Your task to perform on an android device: Open calendar and show me the third week of next month Image 0: 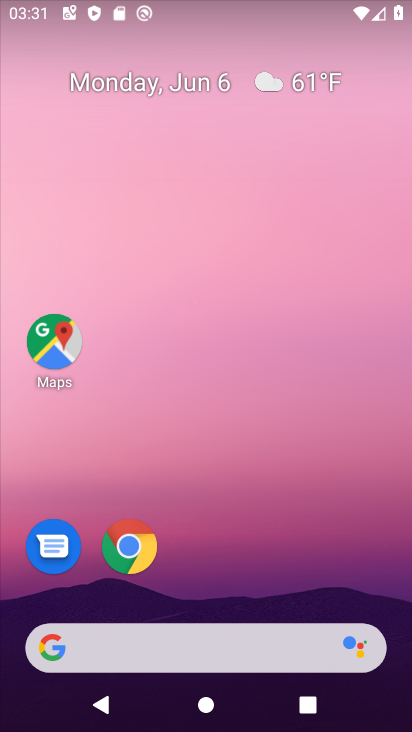
Step 0: press home button
Your task to perform on an android device: Open calendar and show me the third week of next month Image 1: 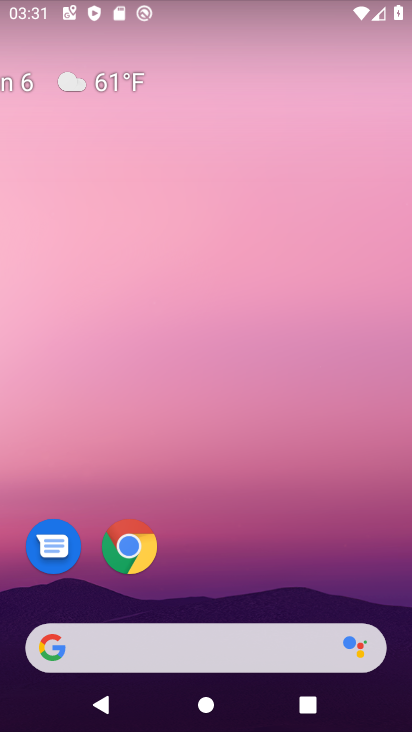
Step 1: drag from (184, 607) to (249, 159)
Your task to perform on an android device: Open calendar and show me the third week of next month Image 2: 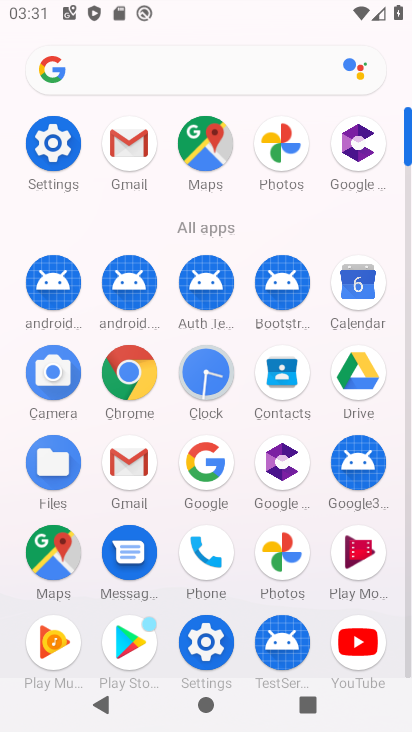
Step 2: click (365, 281)
Your task to perform on an android device: Open calendar and show me the third week of next month Image 3: 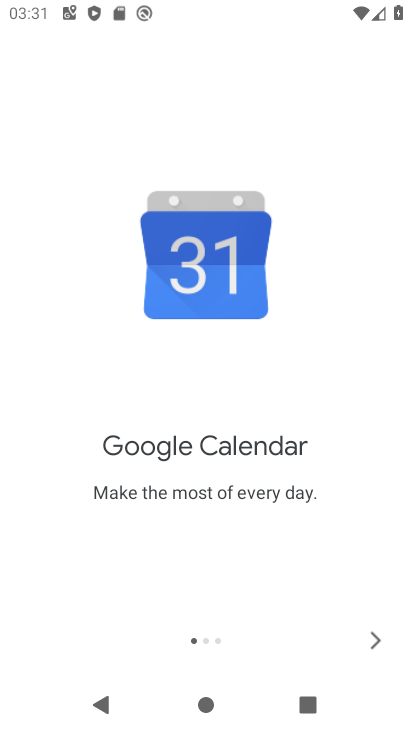
Step 3: click (381, 637)
Your task to perform on an android device: Open calendar and show me the third week of next month Image 4: 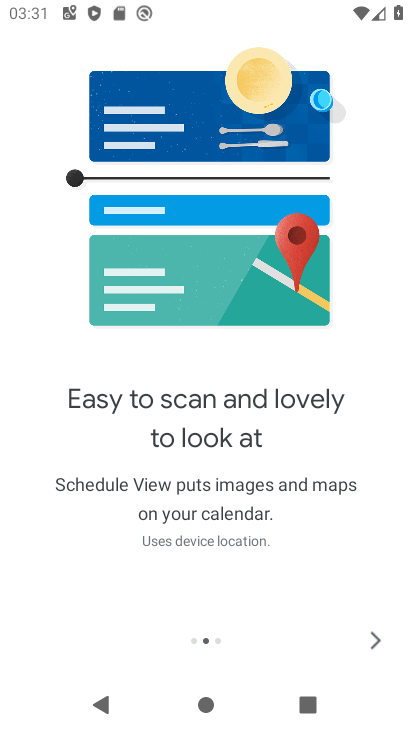
Step 4: click (381, 637)
Your task to perform on an android device: Open calendar and show me the third week of next month Image 5: 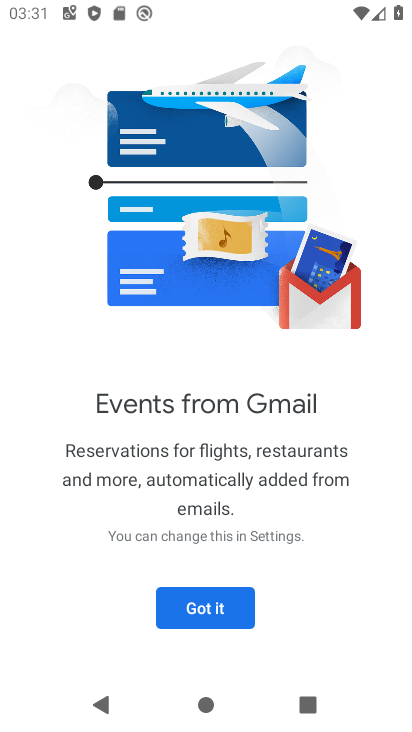
Step 5: click (192, 605)
Your task to perform on an android device: Open calendar and show me the third week of next month Image 6: 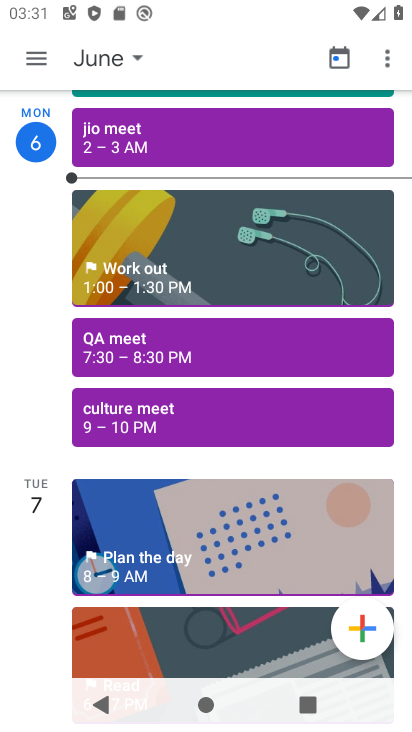
Step 6: click (132, 61)
Your task to perform on an android device: Open calendar and show me the third week of next month Image 7: 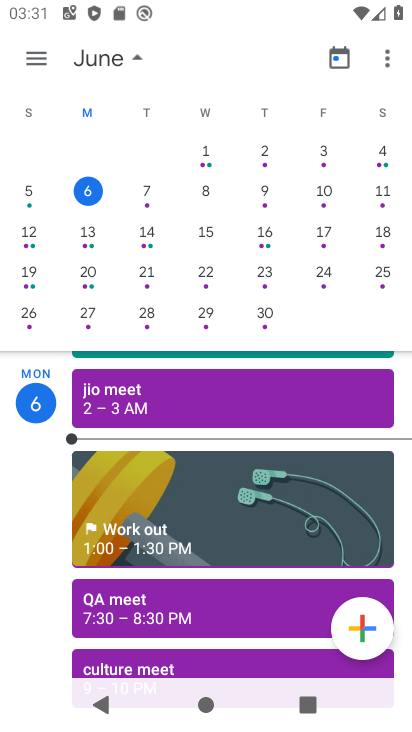
Step 7: drag from (325, 220) to (49, 200)
Your task to perform on an android device: Open calendar and show me the third week of next month Image 8: 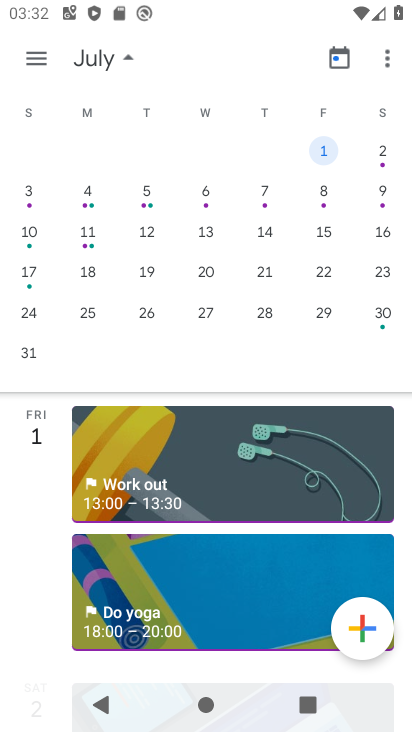
Step 8: click (323, 231)
Your task to perform on an android device: Open calendar and show me the third week of next month Image 9: 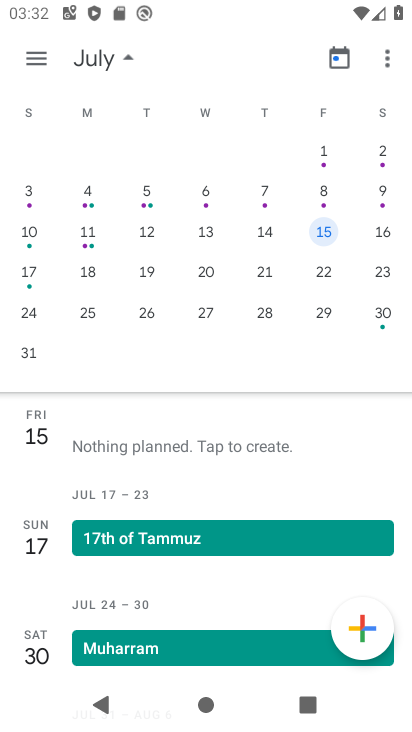
Step 9: task complete